Your task to perform on an android device: turn off notifications settings in the gmail app Image 0: 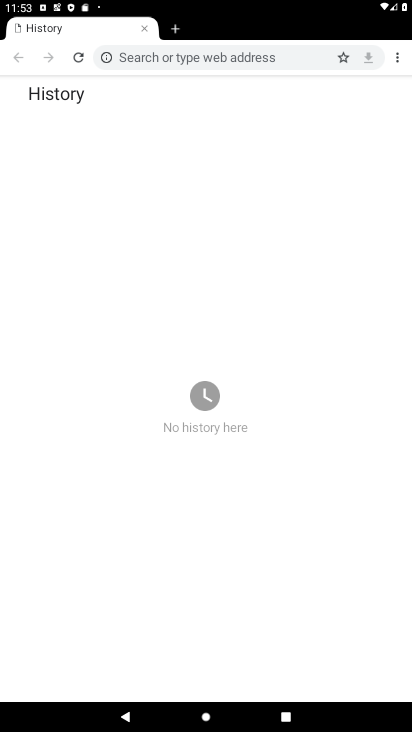
Step 0: press home button
Your task to perform on an android device: turn off notifications settings in the gmail app Image 1: 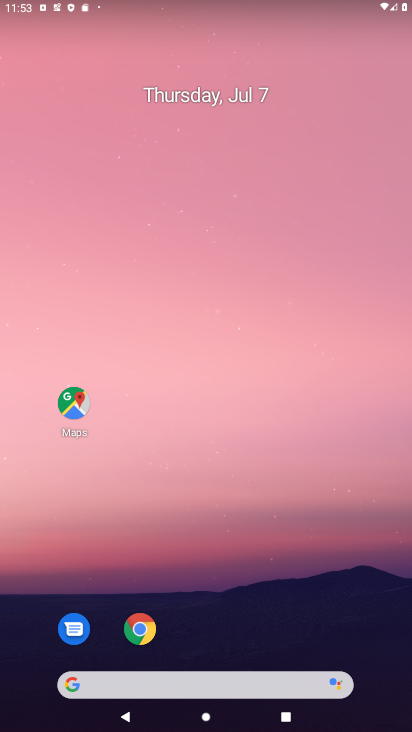
Step 1: drag from (380, 686) to (359, 154)
Your task to perform on an android device: turn off notifications settings in the gmail app Image 2: 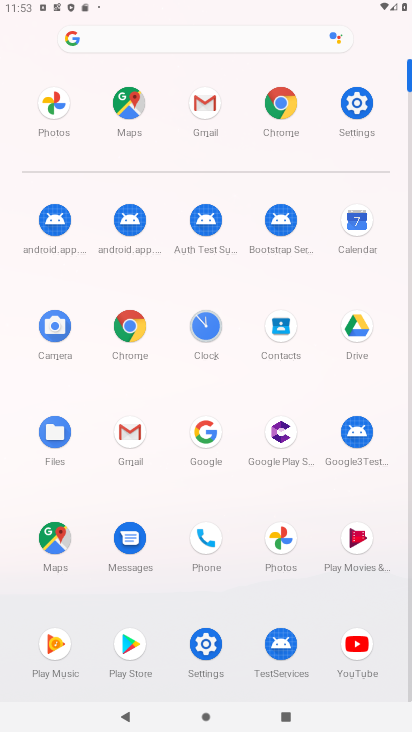
Step 2: click (131, 433)
Your task to perform on an android device: turn off notifications settings in the gmail app Image 3: 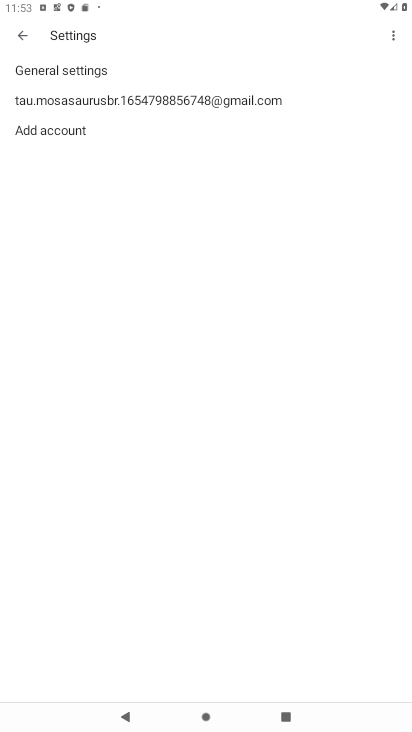
Step 3: click (111, 101)
Your task to perform on an android device: turn off notifications settings in the gmail app Image 4: 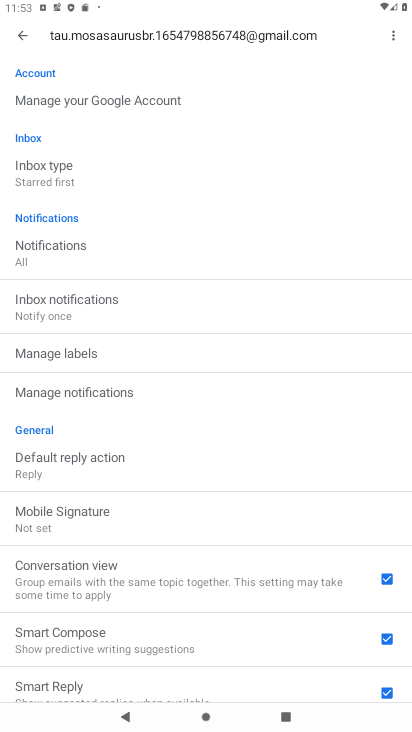
Step 4: click (91, 407)
Your task to perform on an android device: turn off notifications settings in the gmail app Image 5: 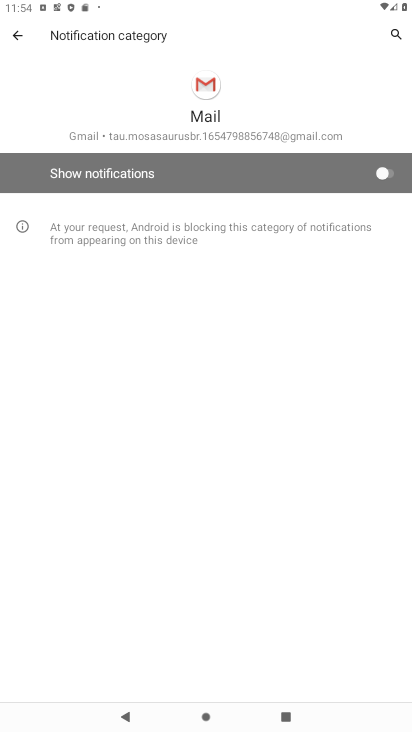
Step 5: task complete